Your task to perform on an android device: search for starred emails in the gmail app Image 0: 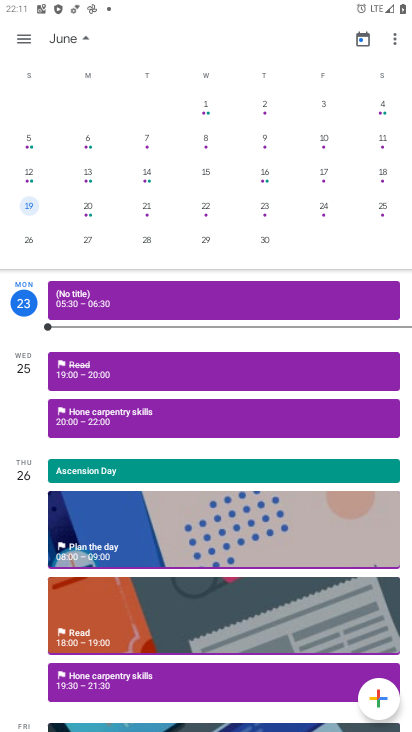
Step 0: press home button
Your task to perform on an android device: search for starred emails in the gmail app Image 1: 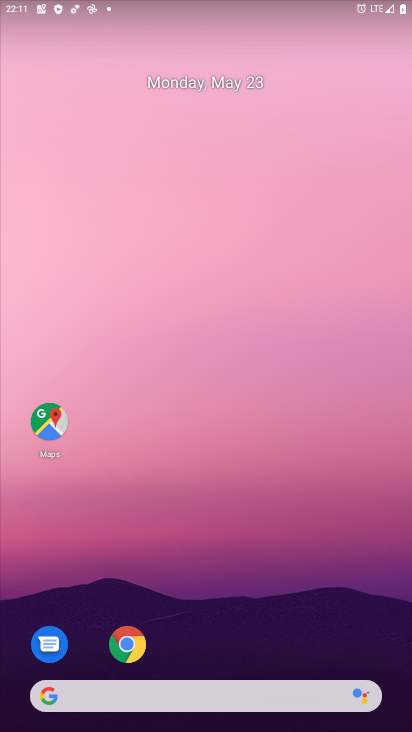
Step 1: drag from (148, 725) to (182, 8)
Your task to perform on an android device: search for starred emails in the gmail app Image 2: 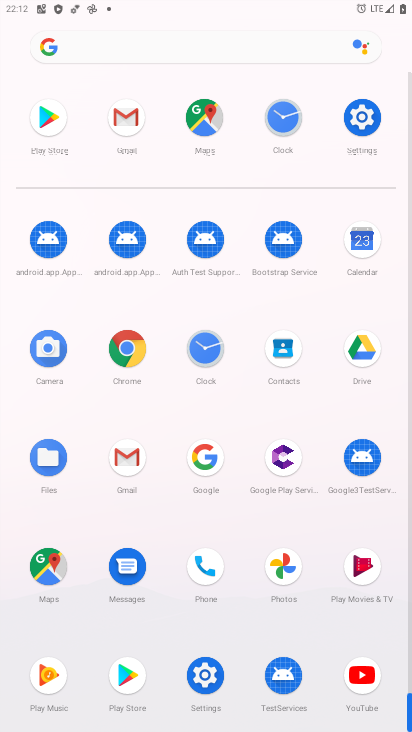
Step 2: click (122, 114)
Your task to perform on an android device: search for starred emails in the gmail app Image 3: 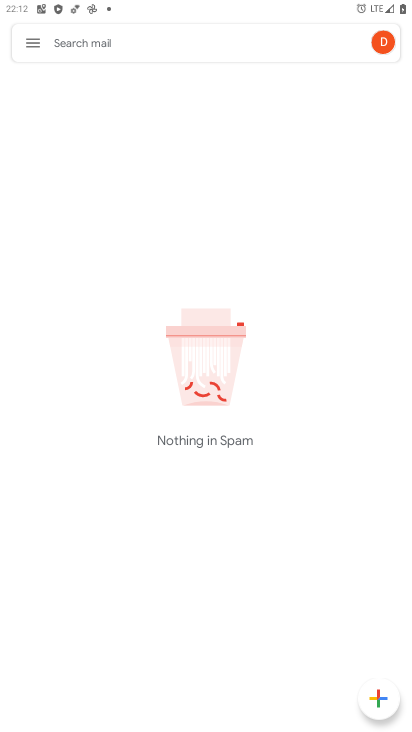
Step 3: click (34, 42)
Your task to perform on an android device: search for starred emails in the gmail app Image 4: 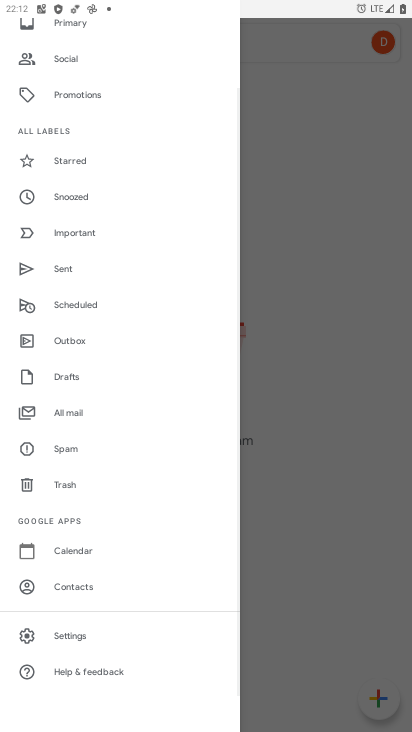
Step 4: click (89, 160)
Your task to perform on an android device: search for starred emails in the gmail app Image 5: 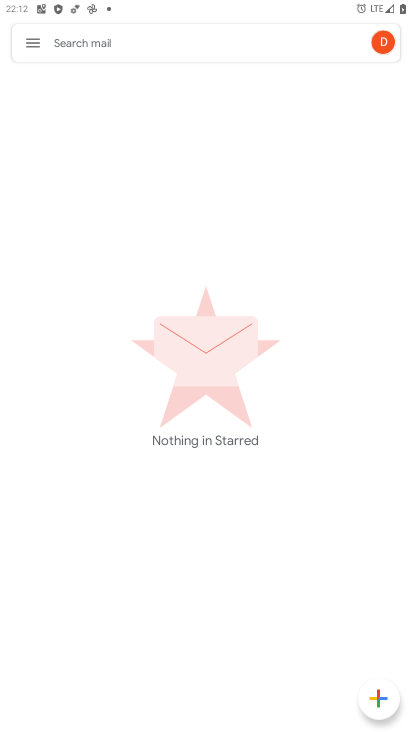
Step 5: task complete